Your task to perform on an android device: Go to Wikipedia Image 0: 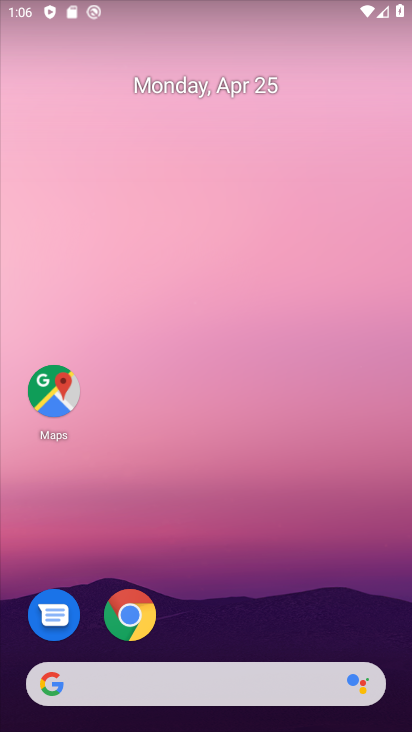
Step 0: click (129, 611)
Your task to perform on an android device: Go to Wikipedia Image 1: 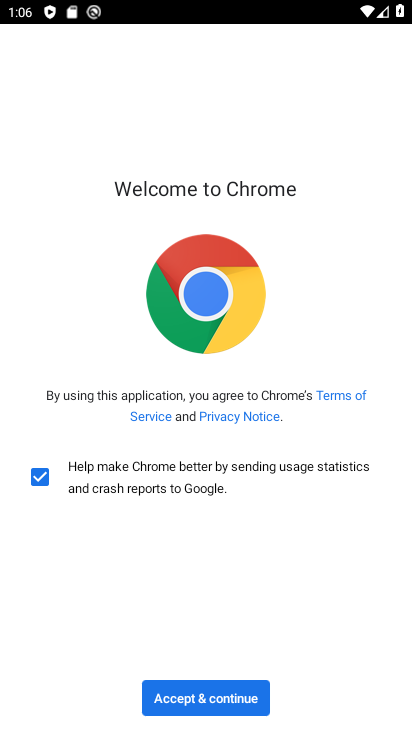
Step 1: click (181, 695)
Your task to perform on an android device: Go to Wikipedia Image 2: 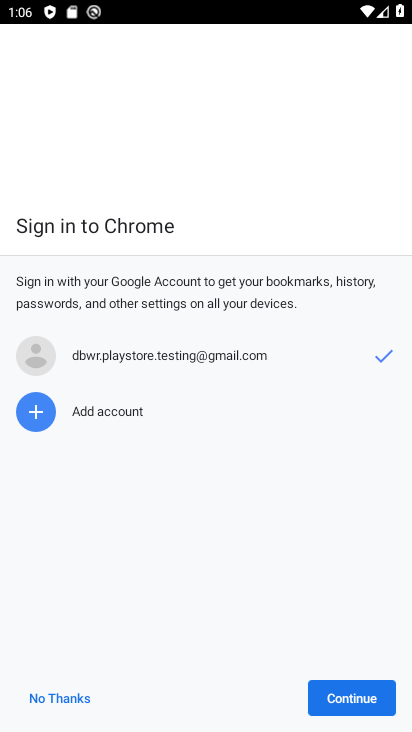
Step 2: click (351, 690)
Your task to perform on an android device: Go to Wikipedia Image 3: 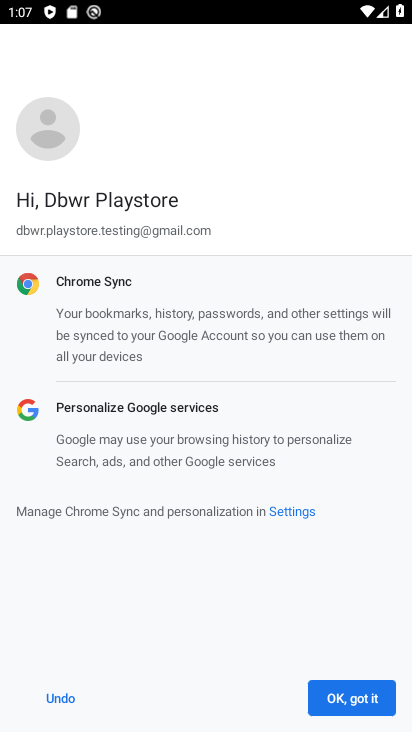
Step 3: click (351, 699)
Your task to perform on an android device: Go to Wikipedia Image 4: 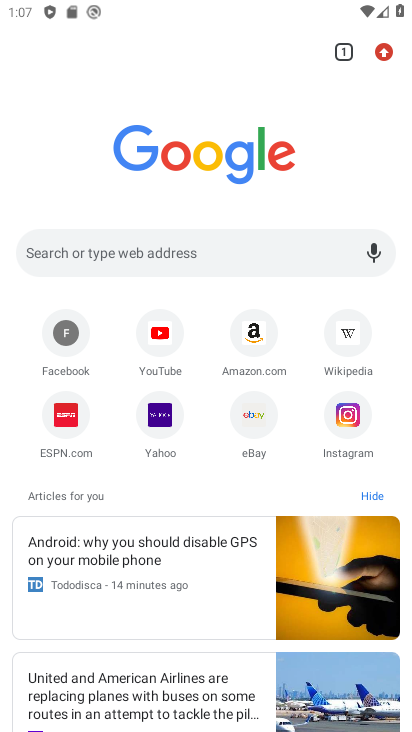
Step 4: click (348, 333)
Your task to perform on an android device: Go to Wikipedia Image 5: 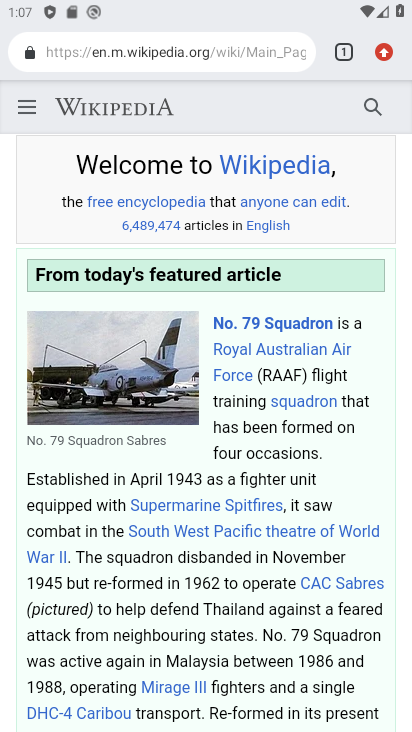
Step 5: task complete